Your task to perform on an android device: set the timer Image 0: 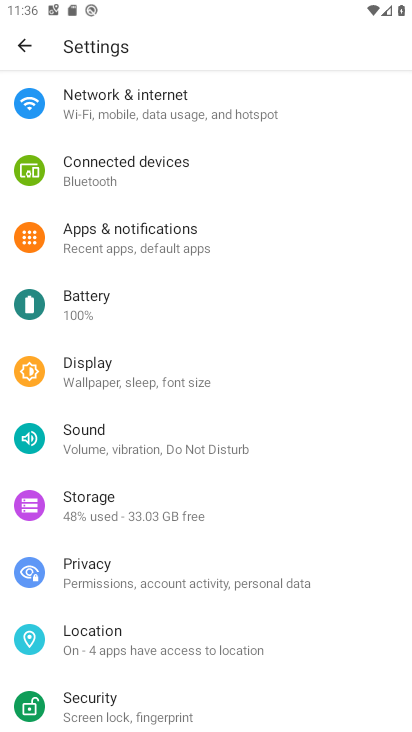
Step 0: press home button
Your task to perform on an android device: set the timer Image 1: 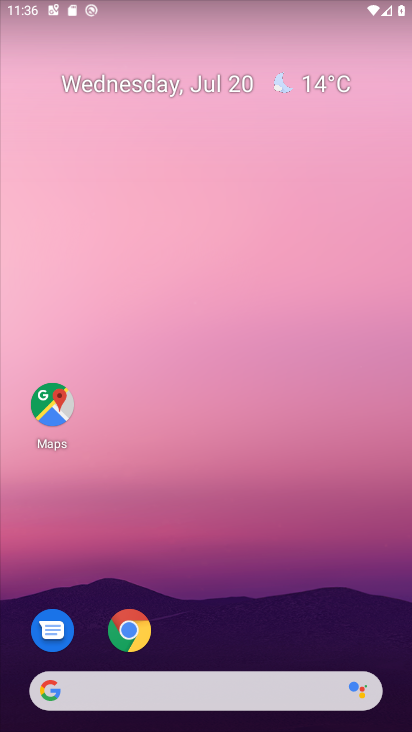
Step 1: drag from (224, 659) to (153, 42)
Your task to perform on an android device: set the timer Image 2: 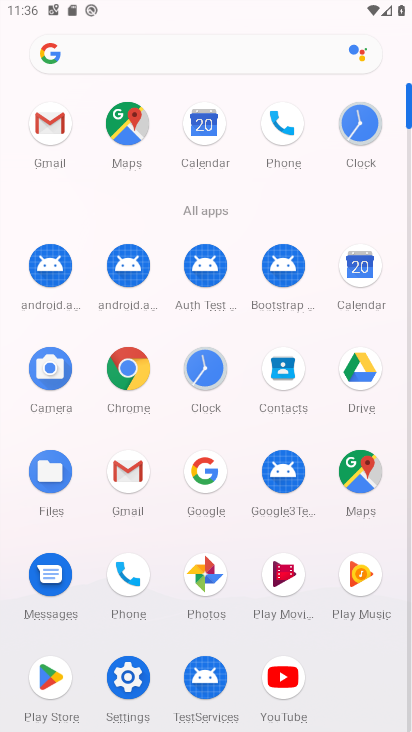
Step 2: click (217, 377)
Your task to perform on an android device: set the timer Image 3: 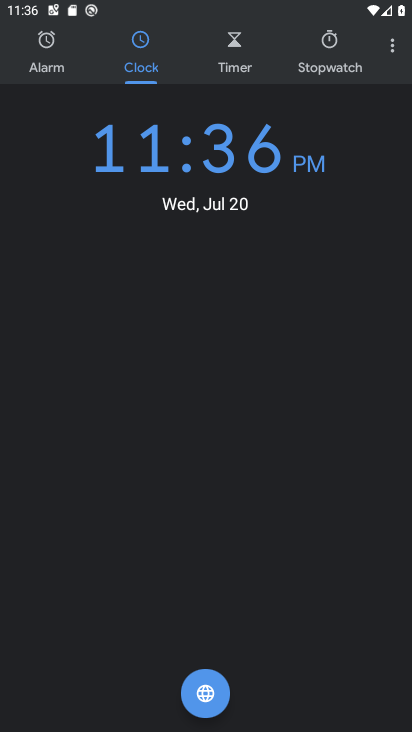
Step 3: click (249, 90)
Your task to perform on an android device: set the timer Image 4: 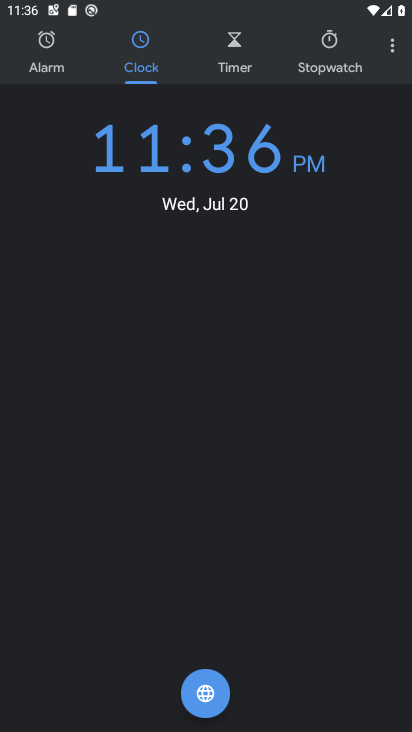
Step 4: click (236, 73)
Your task to perform on an android device: set the timer Image 5: 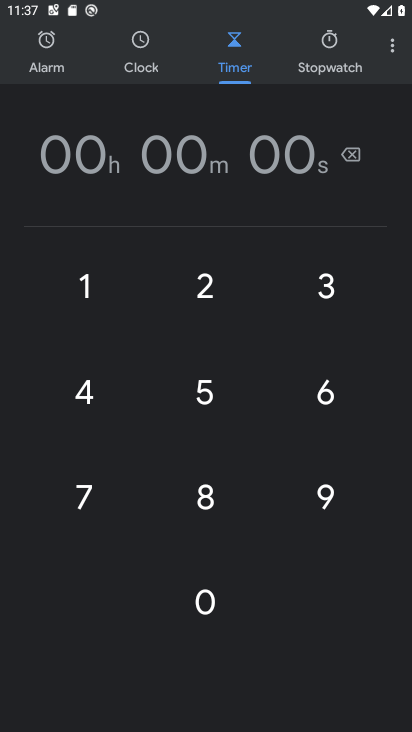
Step 5: task complete